Your task to perform on an android device: Go to settings Image 0: 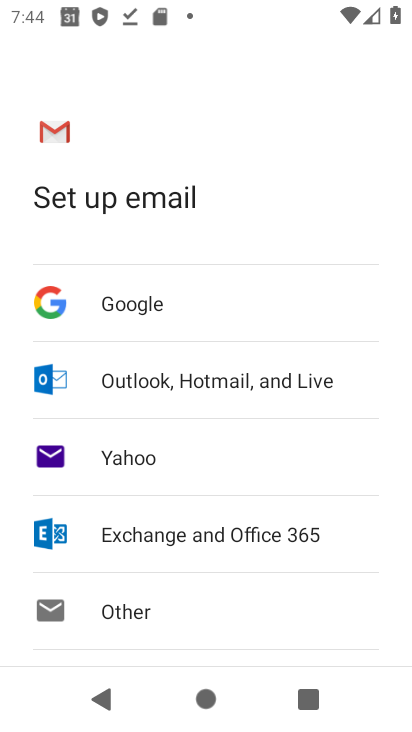
Step 0: press home button
Your task to perform on an android device: Go to settings Image 1: 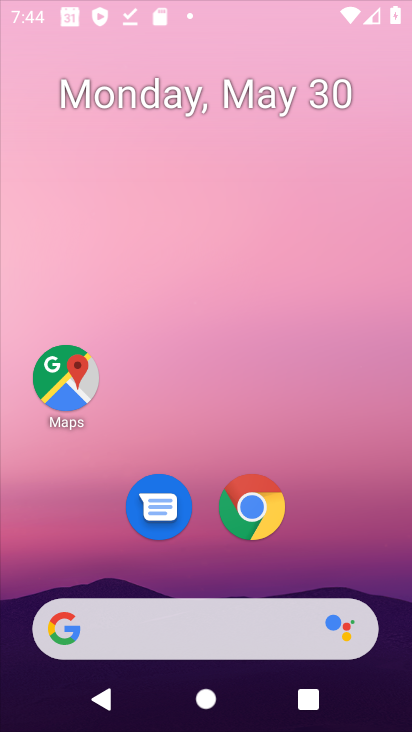
Step 1: drag from (402, 549) to (350, 203)
Your task to perform on an android device: Go to settings Image 2: 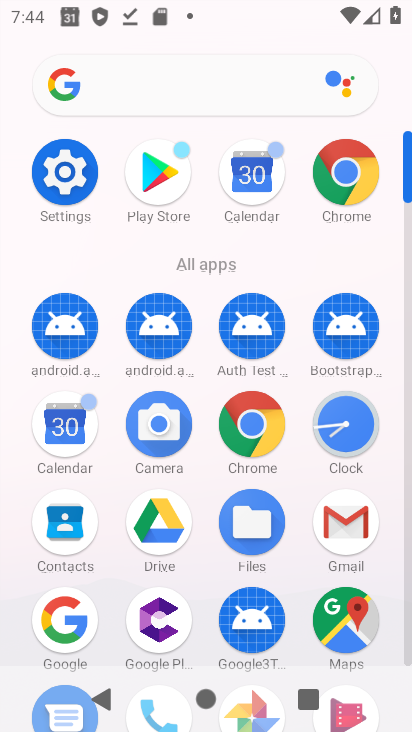
Step 2: click (87, 190)
Your task to perform on an android device: Go to settings Image 3: 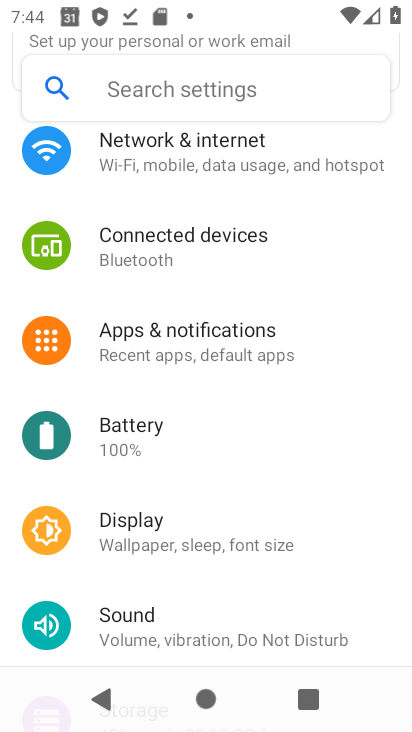
Step 3: drag from (301, 613) to (305, 345)
Your task to perform on an android device: Go to settings Image 4: 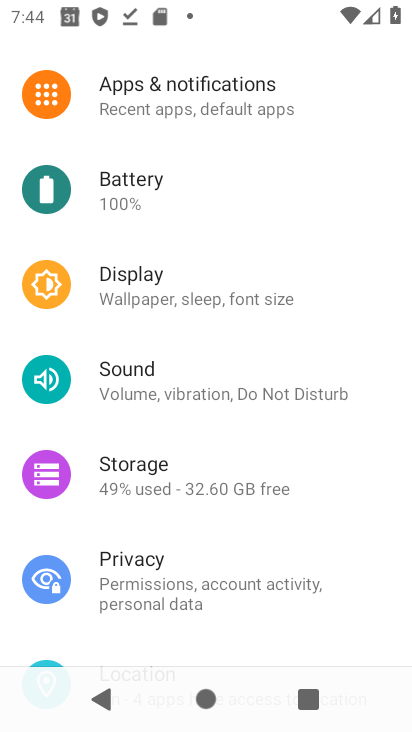
Step 4: drag from (332, 571) to (301, 287)
Your task to perform on an android device: Go to settings Image 5: 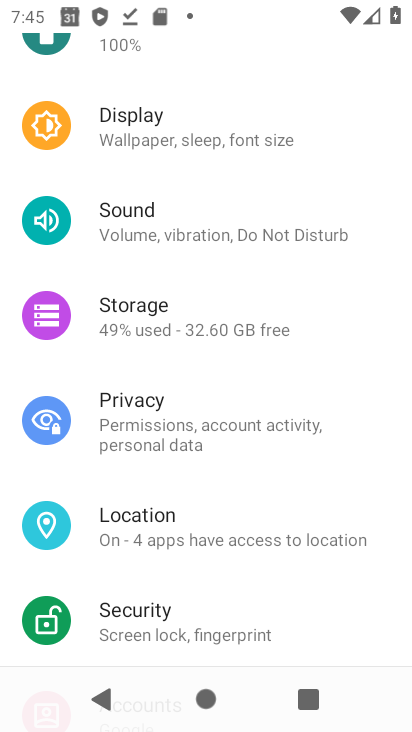
Step 5: click (261, 296)
Your task to perform on an android device: Go to settings Image 6: 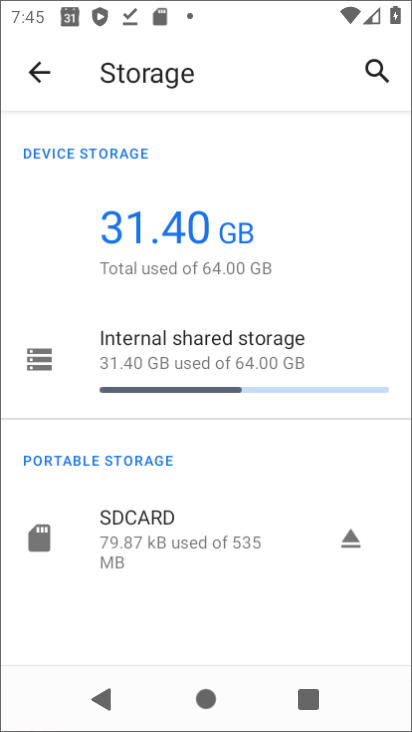
Step 6: drag from (300, 598) to (295, 518)
Your task to perform on an android device: Go to settings Image 7: 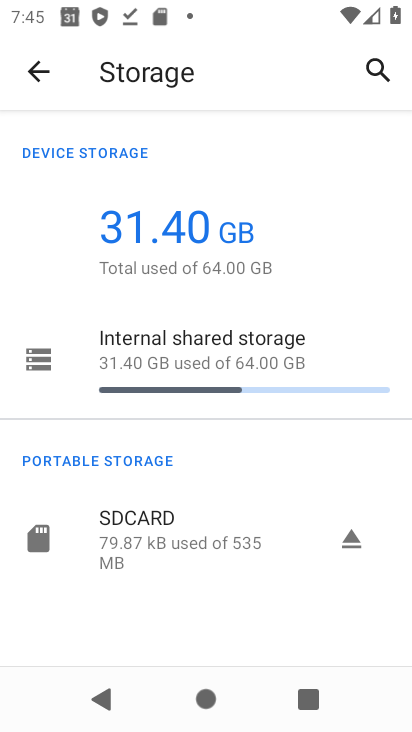
Step 7: click (55, 367)
Your task to perform on an android device: Go to settings Image 8: 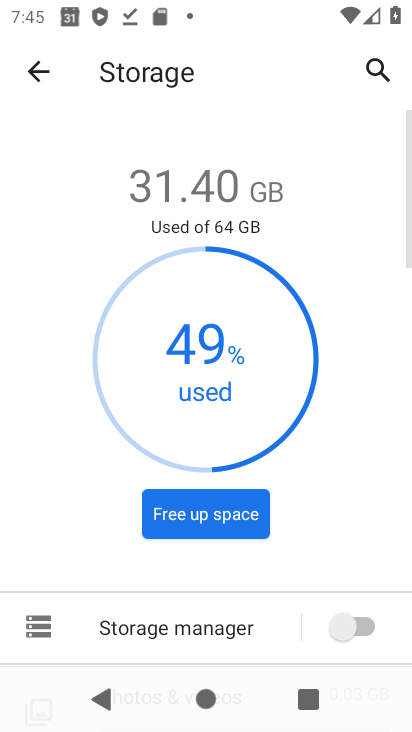
Step 8: task complete